Your task to perform on an android device: Is it going to rain tomorrow? Image 0: 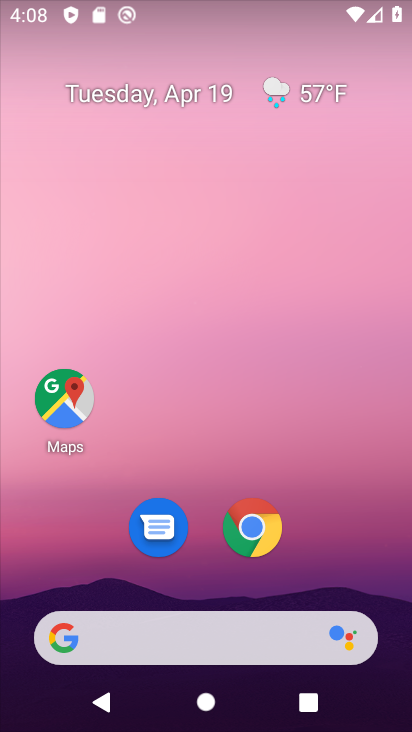
Step 0: click (270, 88)
Your task to perform on an android device: Is it going to rain tomorrow? Image 1: 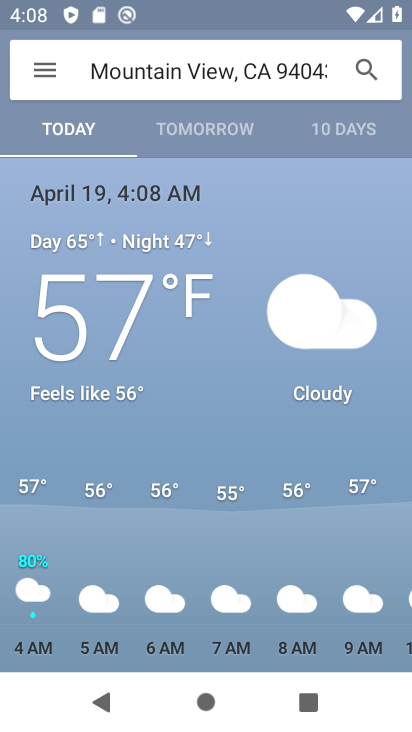
Step 1: drag from (353, 594) to (48, 537)
Your task to perform on an android device: Is it going to rain tomorrow? Image 2: 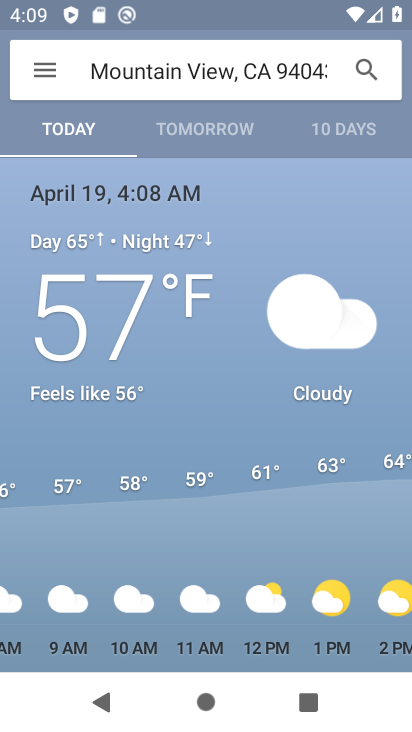
Step 2: click (180, 120)
Your task to perform on an android device: Is it going to rain tomorrow? Image 3: 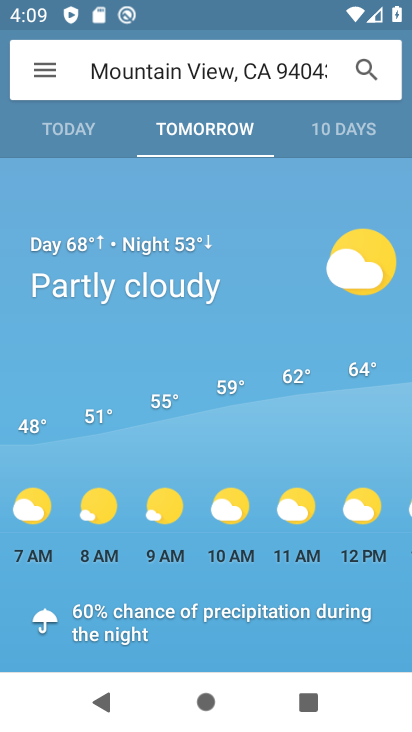
Step 3: task complete